Your task to perform on an android device: move a message to another label in the gmail app Image 0: 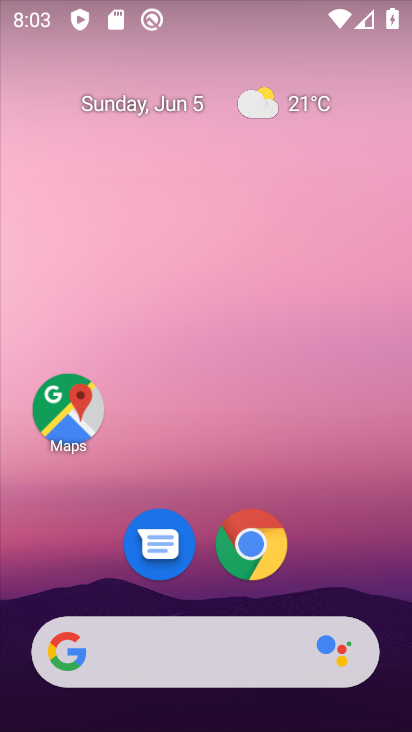
Step 0: drag from (391, 682) to (392, 113)
Your task to perform on an android device: move a message to another label in the gmail app Image 1: 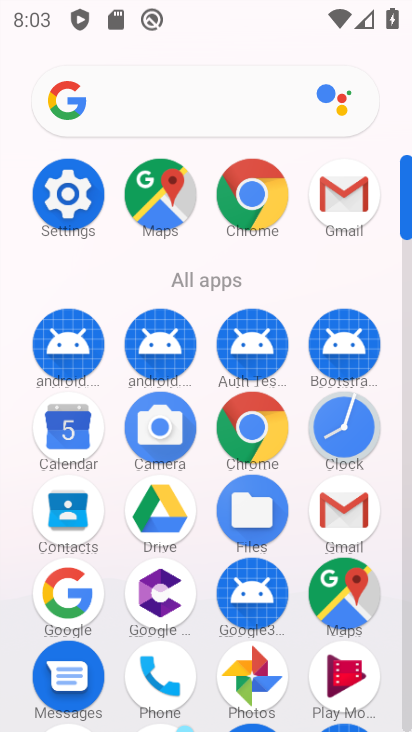
Step 1: click (330, 194)
Your task to perform on an android device: move a message to another label in the gmail app Image 2: 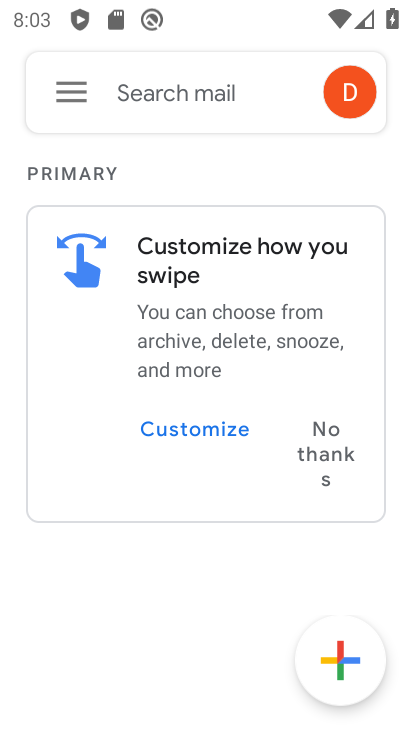
Step 2: task complete